Your task to perform on an android device: What is the news today? Image 0: 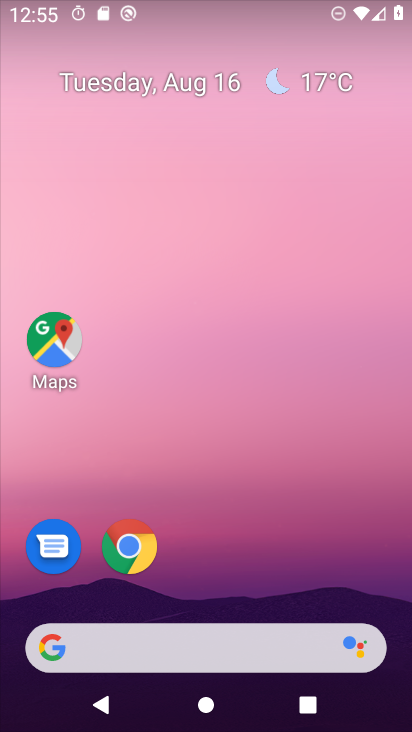
Step 0: drag from (3, 245) to (331, 257)
Your task to perform on an android device: What is the news today? Image 1: 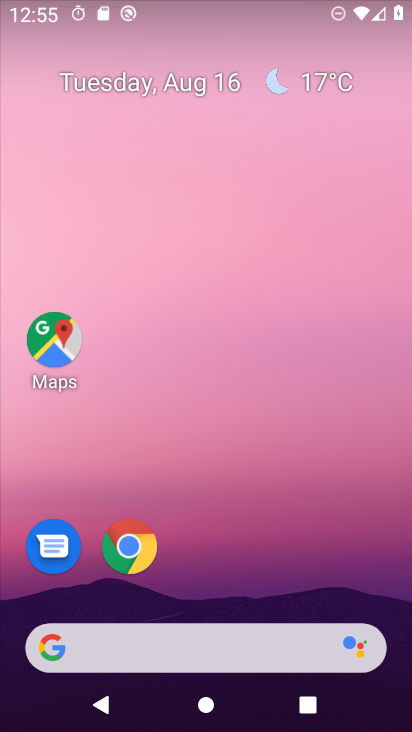
Step 1: task complete